Your task to perform on an android device: allow notifications from all sites in the chrome app Image 0: 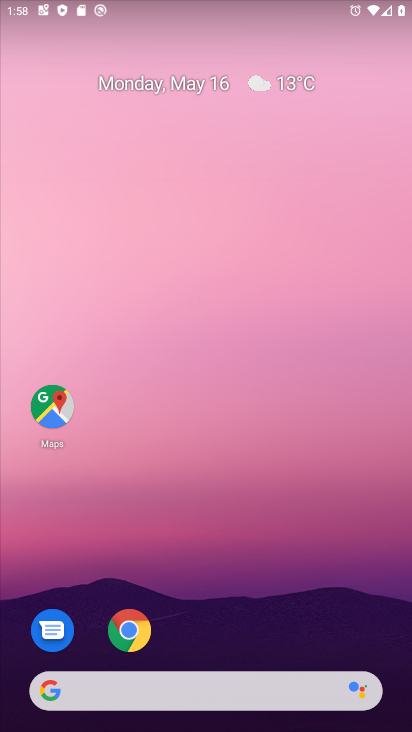
Step 0: click (121, 629)
Your task to perform on an android device: allow notifications from all sites in the chrome app Image 1: 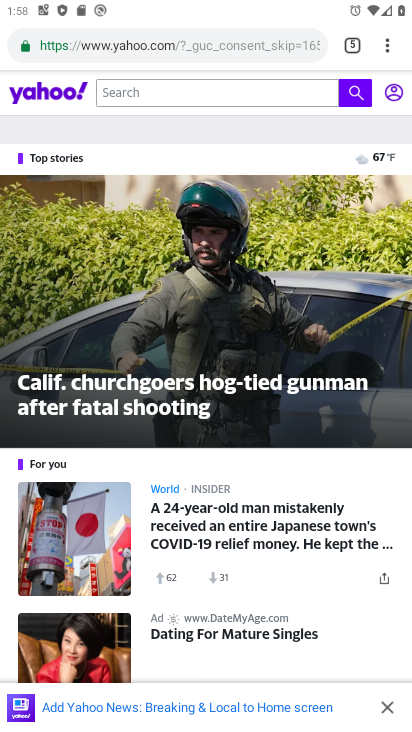
Step 1: click (389, 50)
Your task to perform on an android device: allow notifications from all sites in the chrome app Image 2: 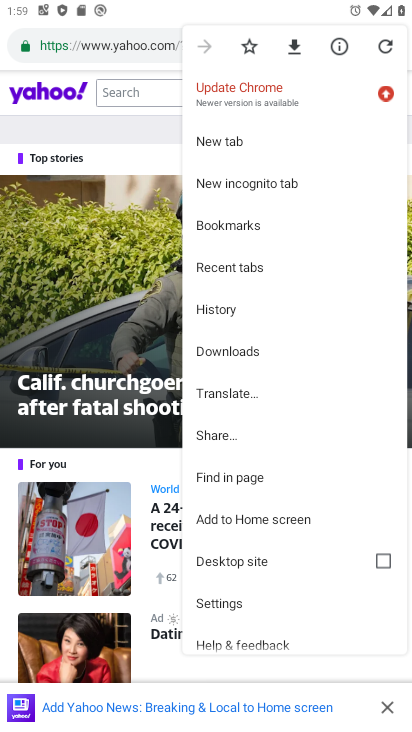
Step 2: click (212, 600)
Your task to perform on an android device: allow notifications from all sites in the chrome app Image 3: 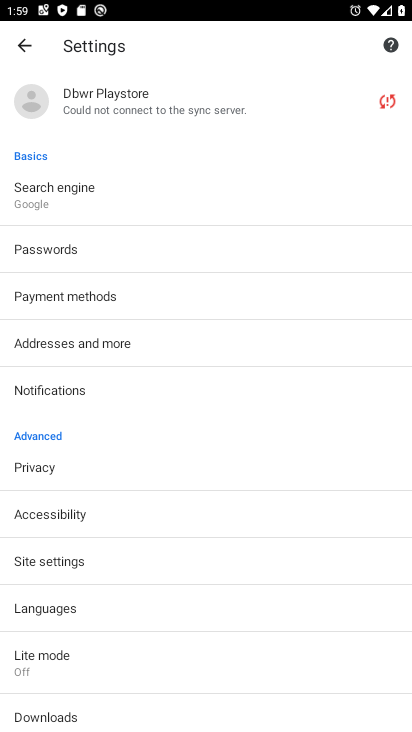
Step 3: click (192, 561)
Your task to perform on an android device: allow notifications from all sites in the chrome app Image 4: 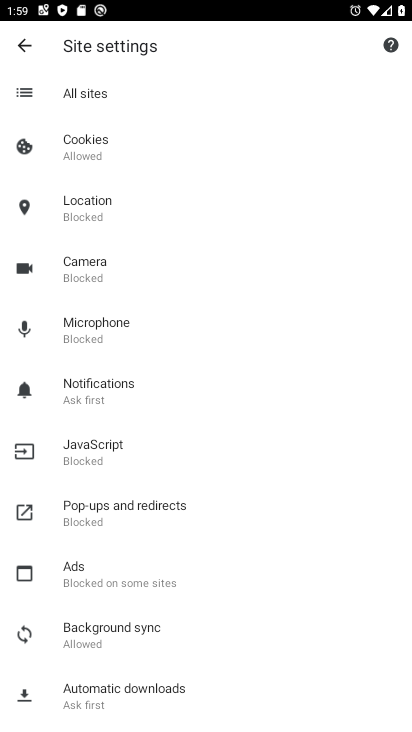
Step 4: drag from (296, 636) to (303, 310)
Your task to perform on an android device: allow notifications from all sites in the chrome app Image 5: 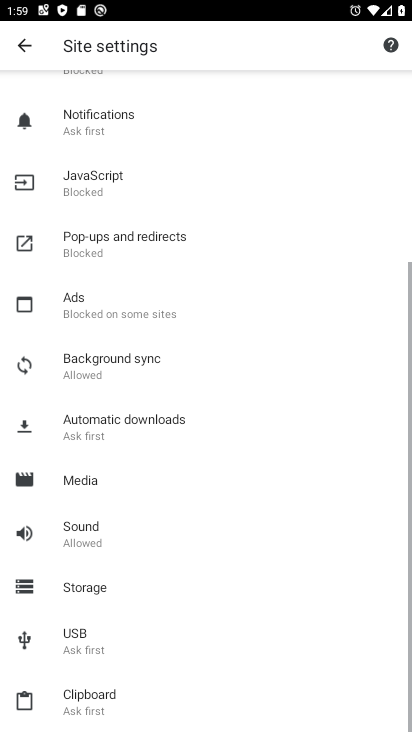
Step 5: drag from (190, 535) to (332, 148)
Your task to perform on an android device: allow notifications from all sites in the chrome app Image 6: 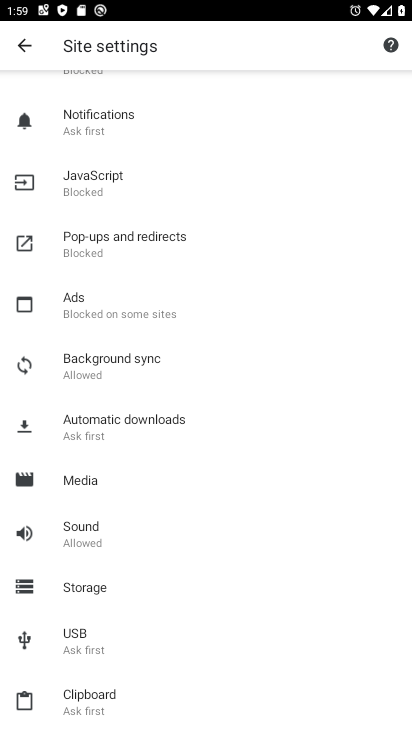
Step 6: drag from (303, 668) to (411, 231)
Your task to perform on an android device: allow notifications from all sites in the chrome app Image 7: 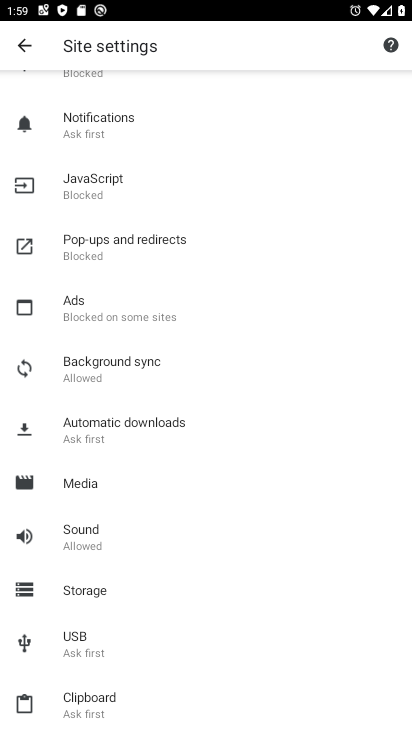
Step 7: drag from (268, 633) to (400, 96)
Your task to perform on an android device: allow notifications from all sites in the chrome app Image 8: 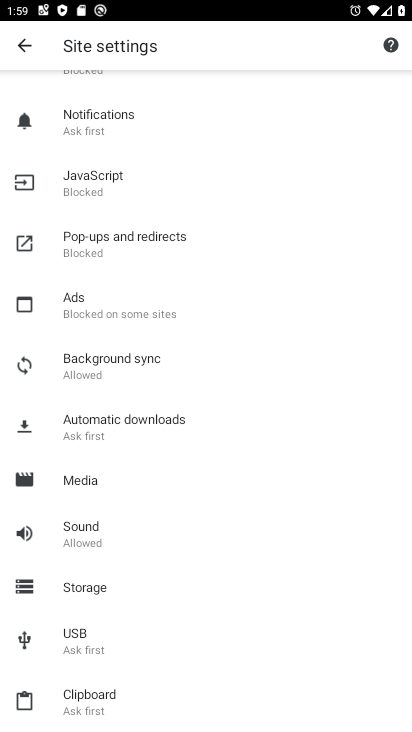
Step 8: drag from (237, 671) to (406, 98)
Your task to perform on an android device: allow notifications from all sites in the chrome app Image 9: 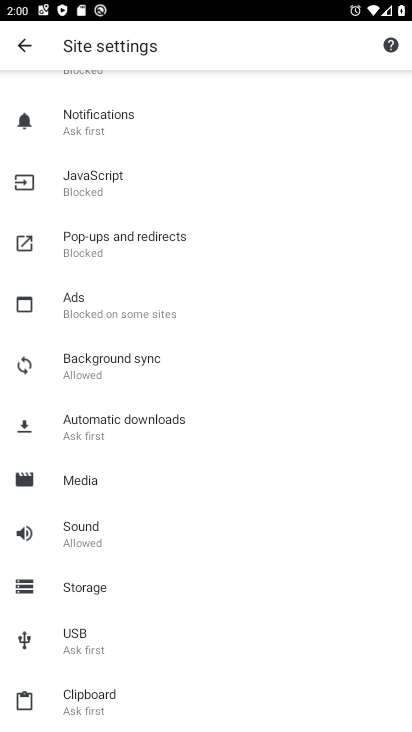
Step 9: press back button
Your task to perform on an android device: allow notifications from all sites in the chrome app Image 10: 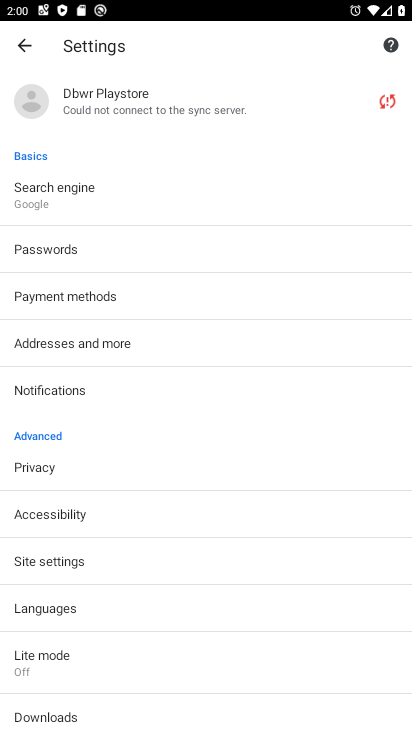
Step 10: click (262, 389)
Your task to perform on an android device: allow notifications from all sites in the chrome app Image 11: 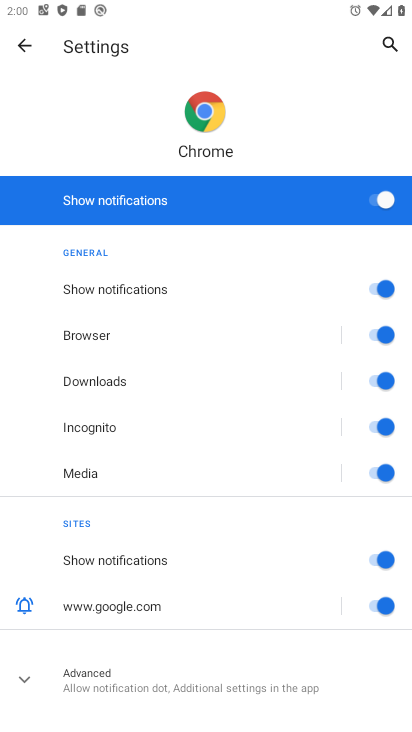
Step 11: click (179, 679)
Your task to perform on an android device: allow notifications from all sites in the chrome app Image 12: 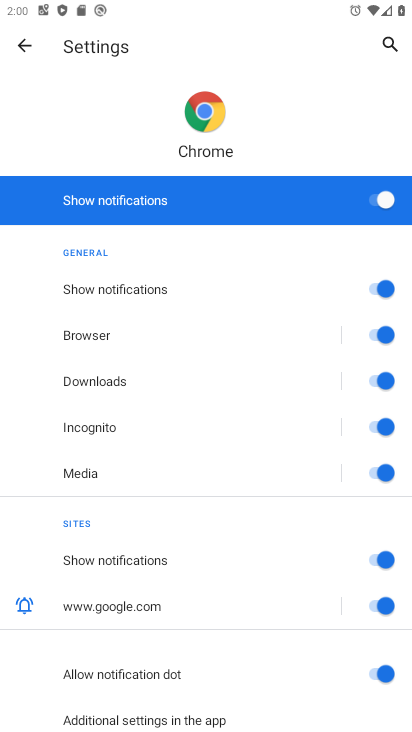
Step 12: drag from (243, 682) to (409, 140)
Your task to perform on an android device: allow notifications from all sites in the chrome app Image 13: 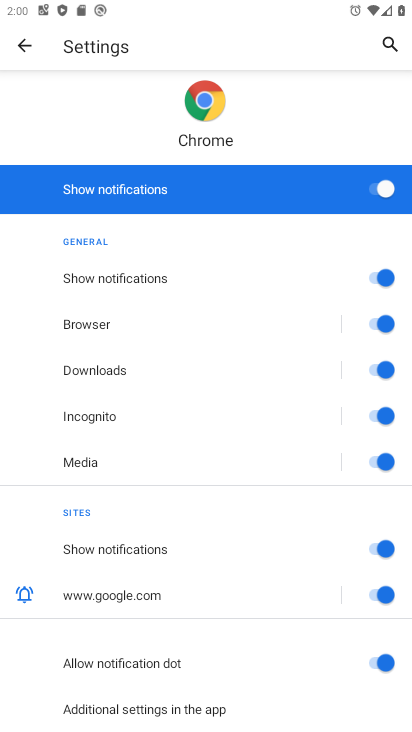
Step 13: click (206, 707)
Your task to perform on an android device: allow notifications from all sites in the chrome app Image 14: 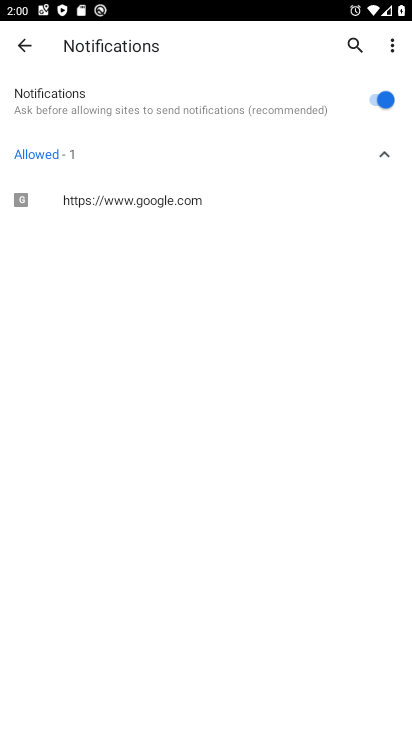
Step 14: task complete